Your task to perform on an android device: turn off location Image 0: 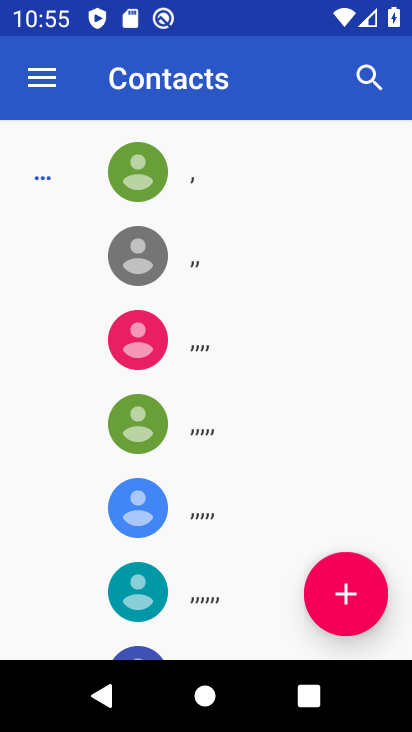
Step 0: press home button
Your task to perform on an android device: turn off location Image 1: 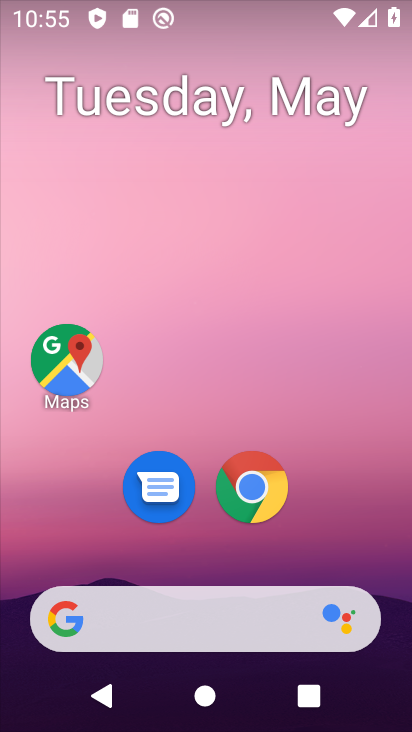
Step 1: drag from (295, 540) to (260, 119)
Your task to perform on an android device: turn off location Image 2: 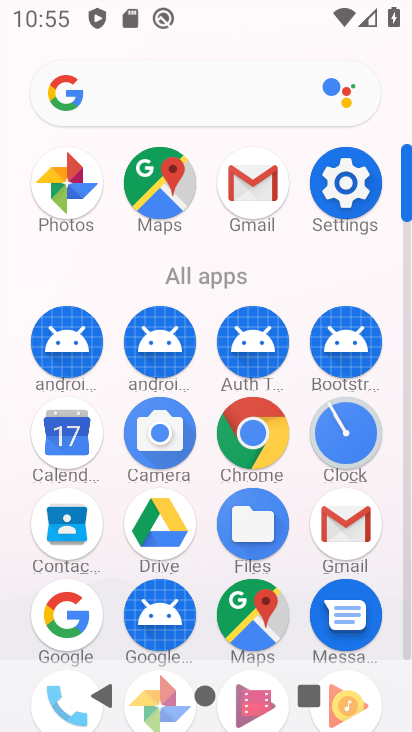
Step 2: click (351, 186)
Your task to perform on an android device: turn off location Image 3: 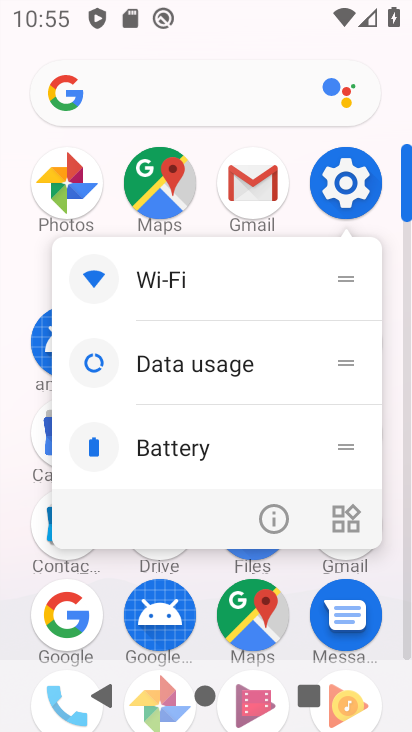
Step 3: click (357, 159)
Your task to perform on an android device: turn off location Image 4: 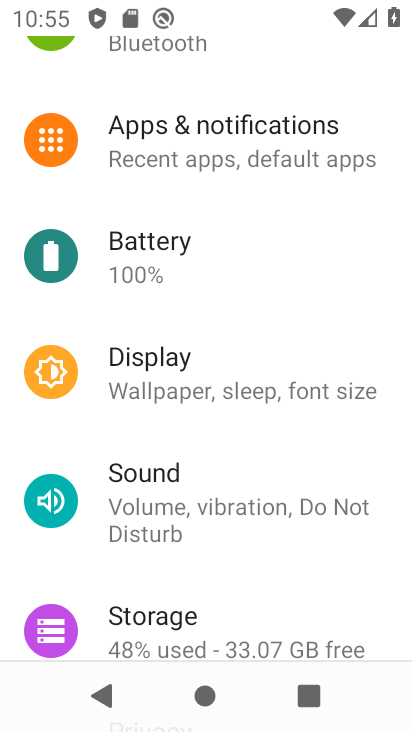
Step 4: drag from (243, 600) to (230, 95)
Your task to perform on an android device: turn off location Image 5: 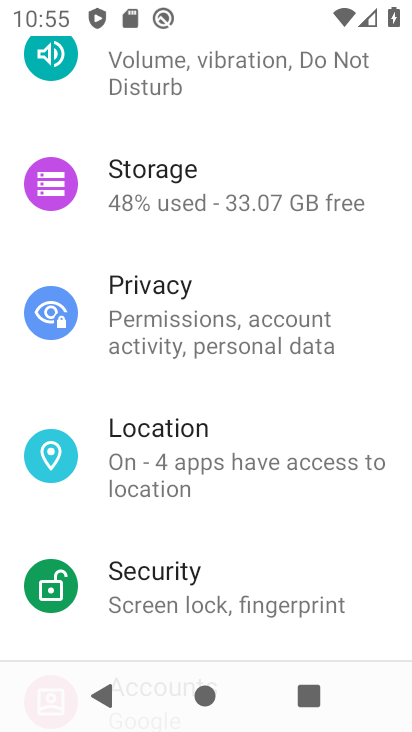
Step 5: click (187, 455)
Your task to perform on an android device: turn off location Image 6: 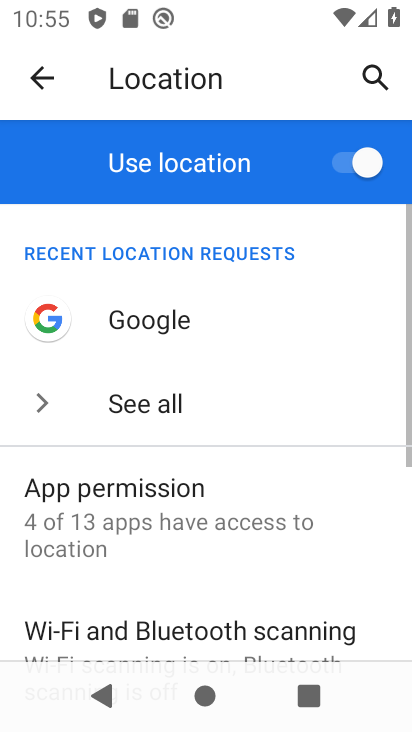
Step 6: click (340, 160)
Your task to perform on an android device: turn off location Image 7: 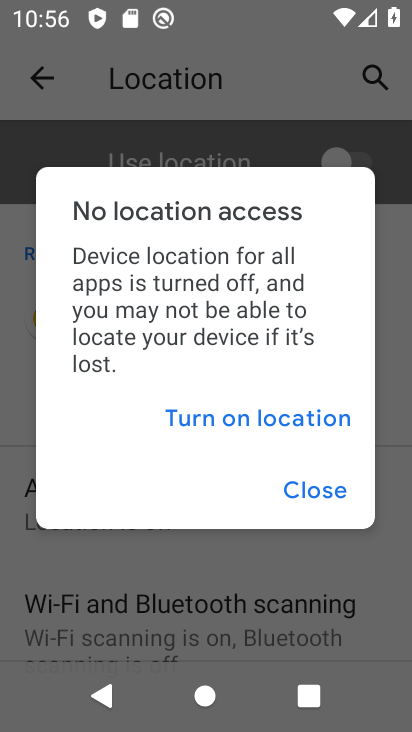
Step 7: click (316, 498)
Your task to perform on an android device: turn off location Image 8: 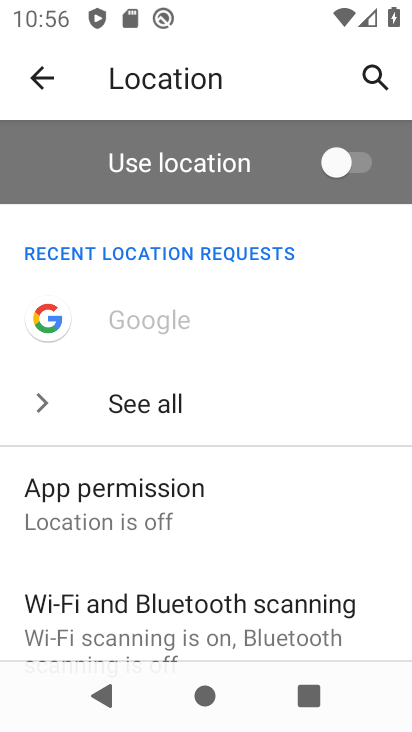
Step 8: task complete